Your task to perform on an android device: open wifi settings Image 0: 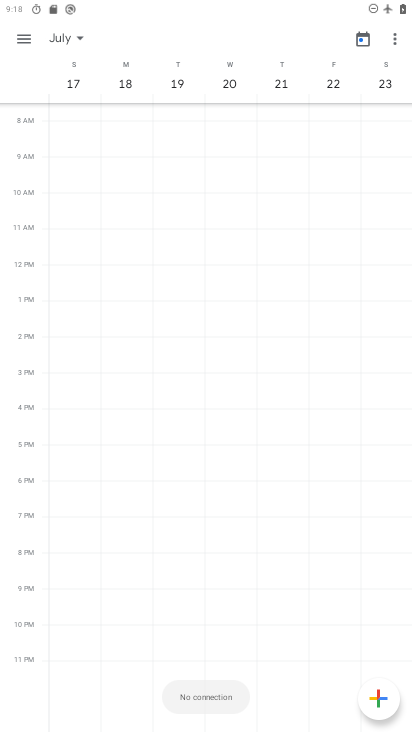
Step 0: press home button
Your task to perform on an android device: open wifi settings Image 1: 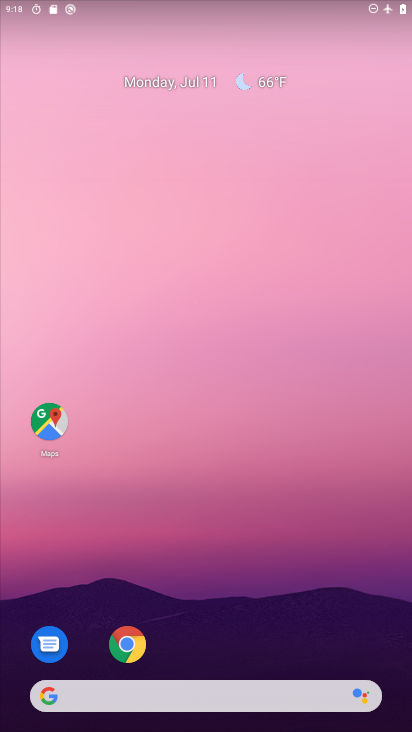
Step 1: drag from (286, 528) to (218, 138)
Your task to perform on an android device: open wifi settings Image 2: 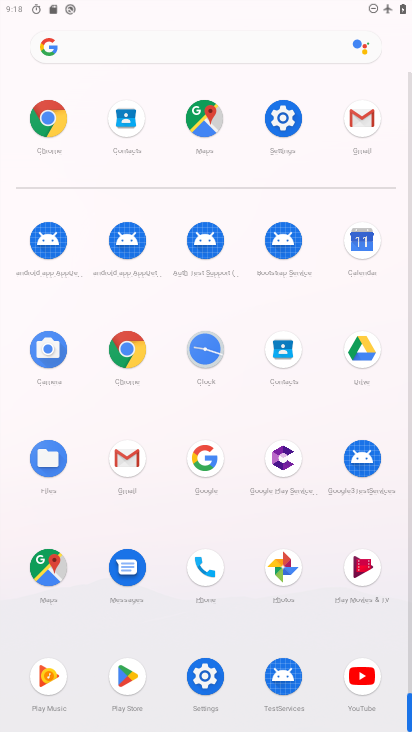
Step 2: click (287, 117)
Your task to perform on an android device: open wifi settings Image 3: 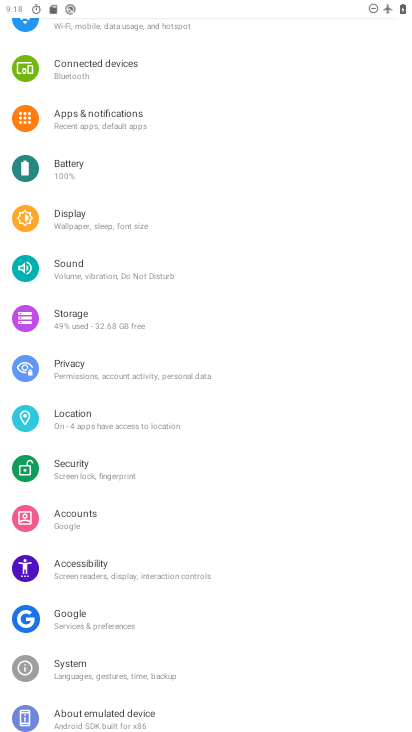
Step 3: drag from (347, 373) to (258, 329)
Your task to perform on an android device: open wifi settings Image 4: 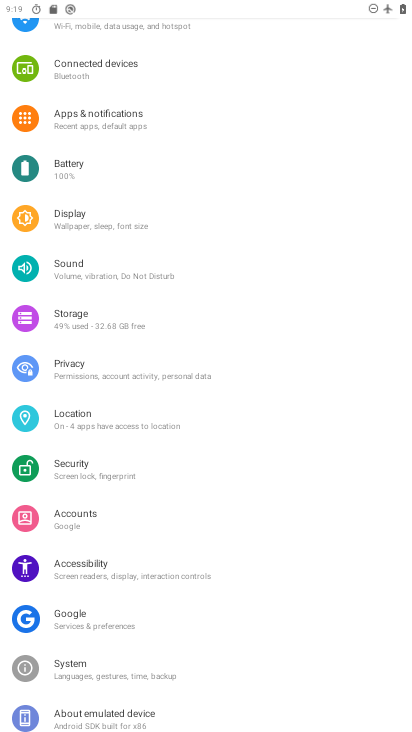
Step 4: drag from (96, 120) to (171, 646)
Your task to perform on an android device: open wifi settings Image 5: 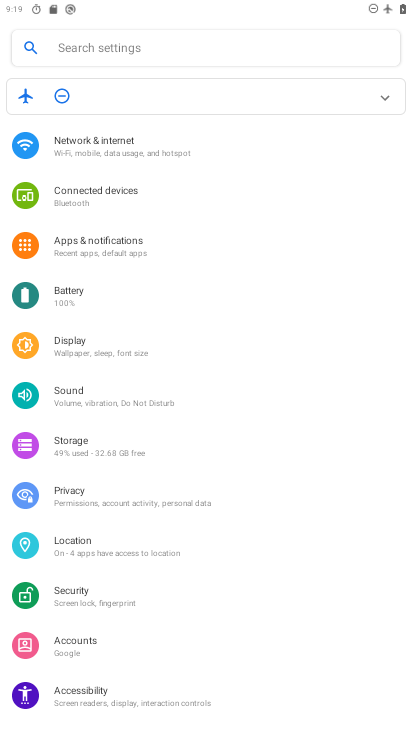
Step 5: click (121, 153)
Your task to perform on an android device: open wifi settings Image 6: 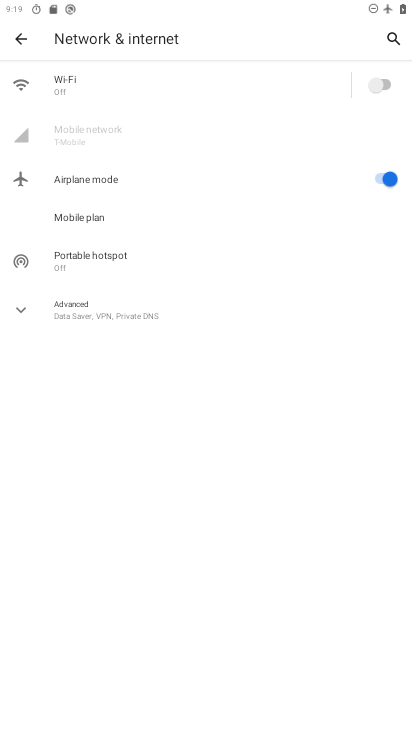
Step 6: click (94, 85)
Your task to perform on an android device: open wifi settings Image 7: 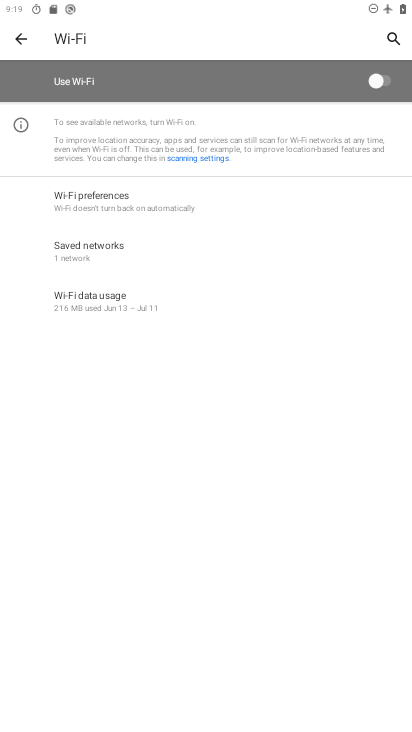
Step 7: task complete